Your task to perform on an android device: Open Google Chrome and click the shortcut for Amazon.com Image 0: 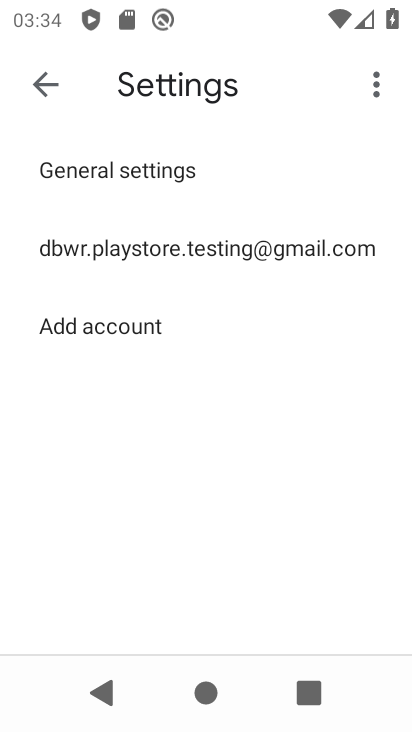
Step 0: press home button
Your task to perform on an android device: Open Google Chrome and click the shortcut for Amazon.com Image 1: 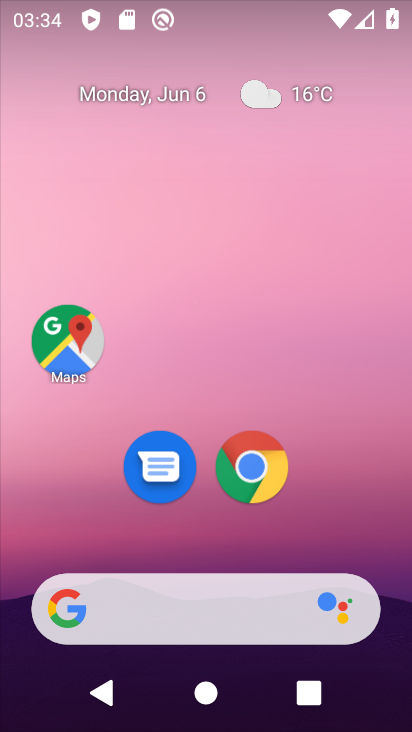
Step 1: click (252, 452)
Your task to perform on an android device: Open Google Chrome and click the shortcut for Amazon.com Image 2: 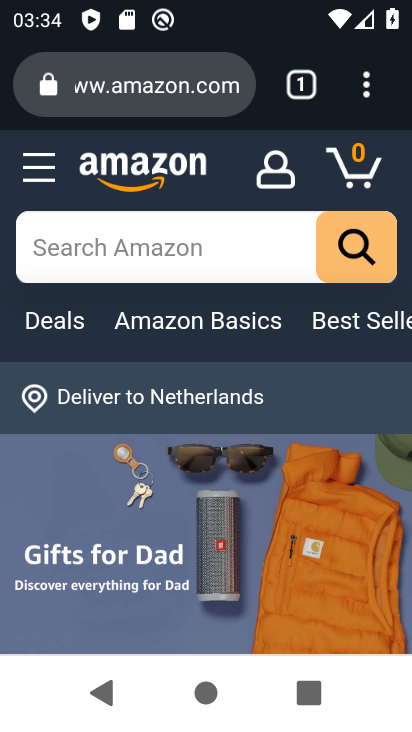
Step 2: task complete